Your task to perform on an android device: toggle translation in the chrome app Image 0: 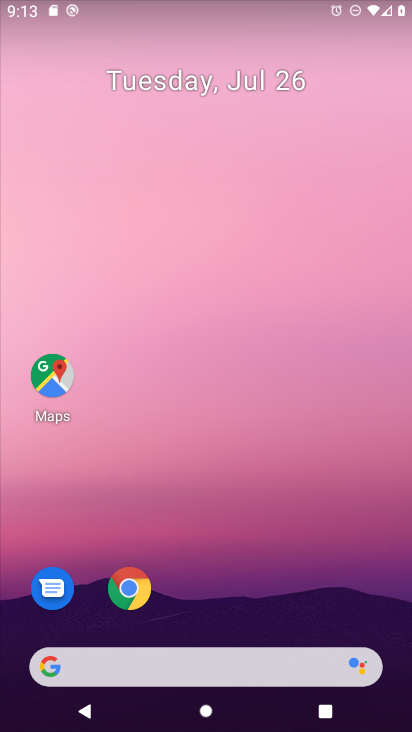
Step 0: drag from (157, 631) to (181, 257)
Your task to perform on an android device: toggle translation in the chrome app Image 1: 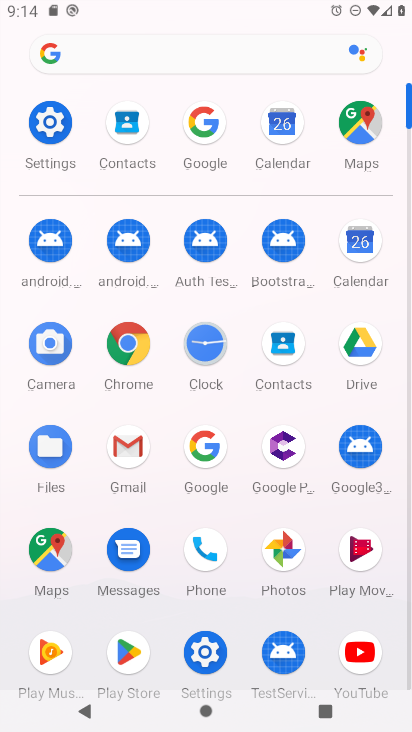
Step 1: click (132, 376)
Your task to perform on an android device: toggle translation in the chrome app Image 2: 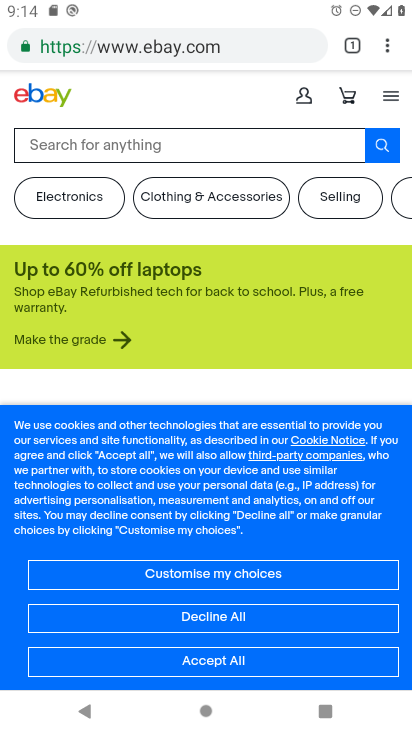
Step 2: click (383, 37)
Your task to perform on an android device: toggle translation in the chrome app Image 3: 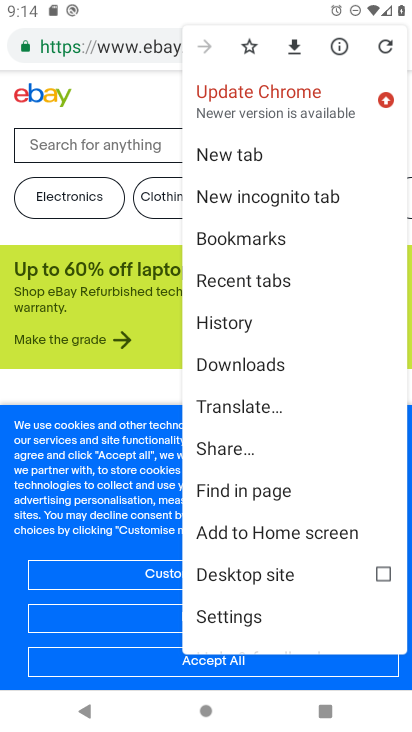
Step 3: click (241, 406)
Your task to perform on an android device: toggle translation in the chrome app Image 4: 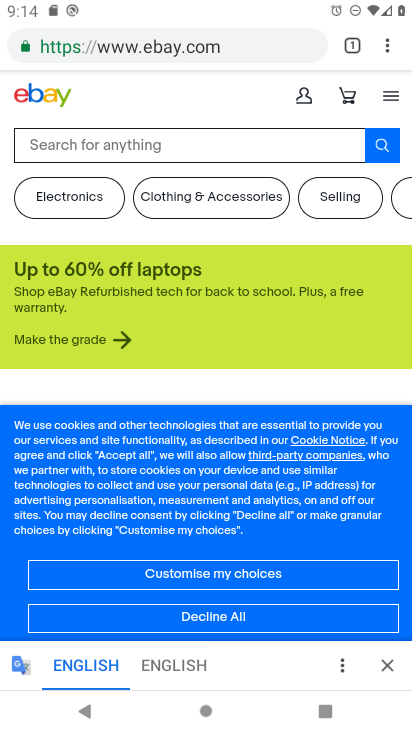
Step 4: click (345, 664)
Your task to perform on an android device: toggle translation in the chrome app Image 5: 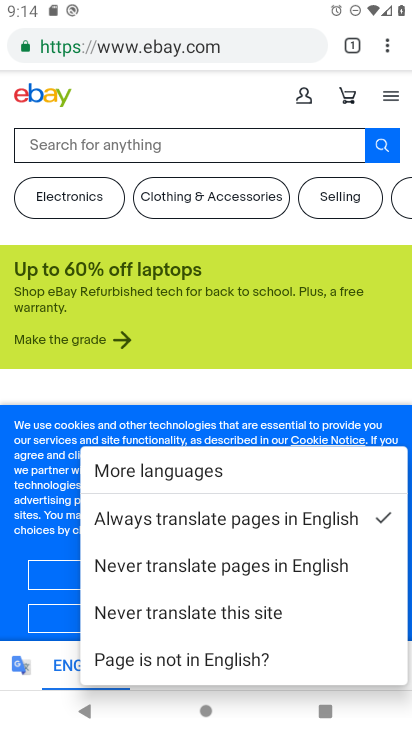
Step 5: click (254, 617)
Your task to perform on an android device: toggle translation in the chrome app Image 6: 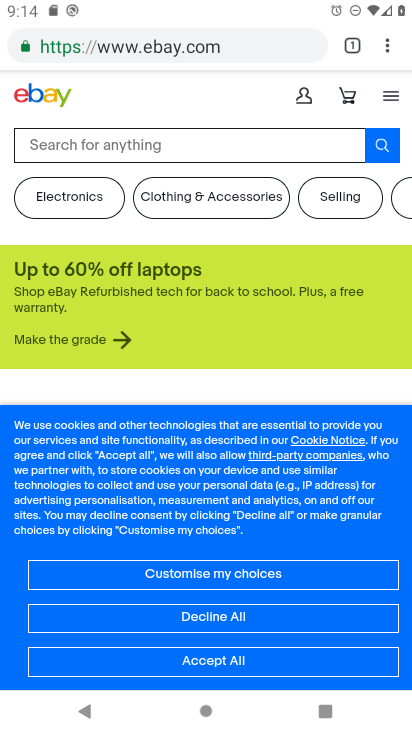
Step 6: task complete